Your task to perform on an android device: turn off location history Image 0: 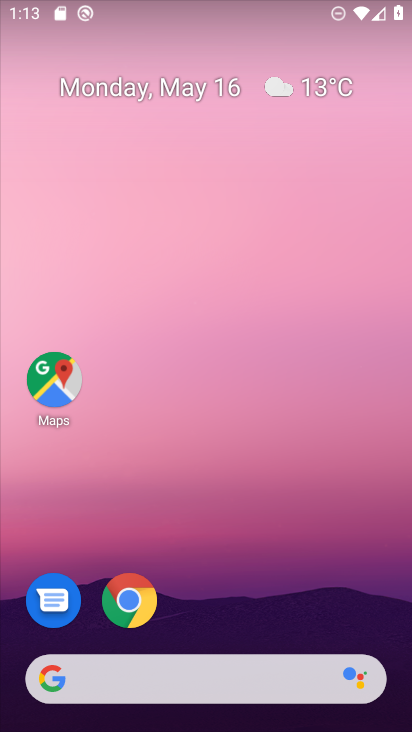
Step 0: drag from (245, 498) to (248, 32)
Your task to perform on an android device: turn off location history Image 1: 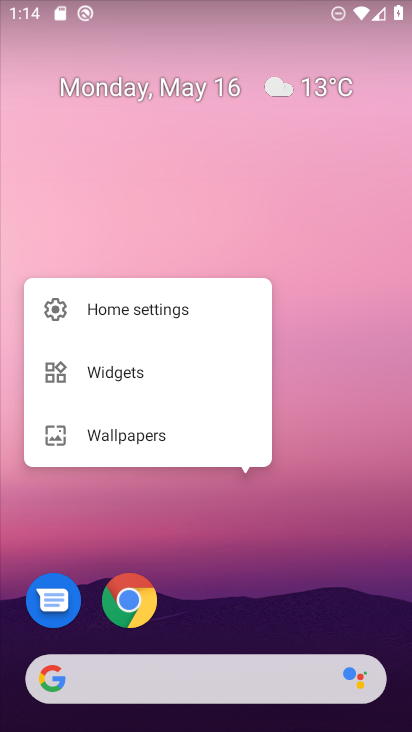
Step 1: click (280, 563)
Your task to perform on an android device: turn off location history Image 2: 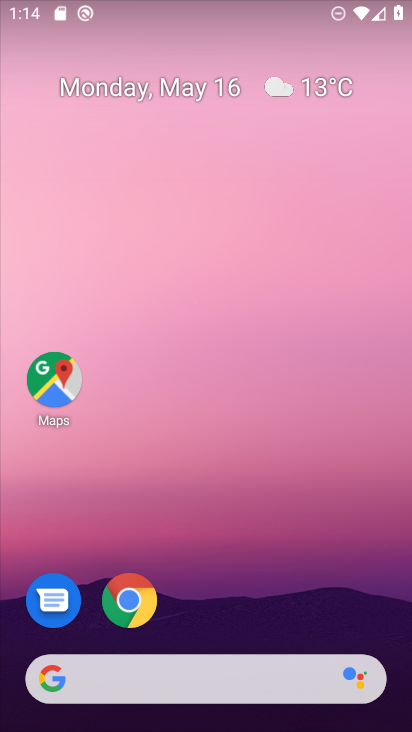
Step 2: drag from (258, 639) to (292, 123)
Your task to perform on an android device: turn off location history Image 3: 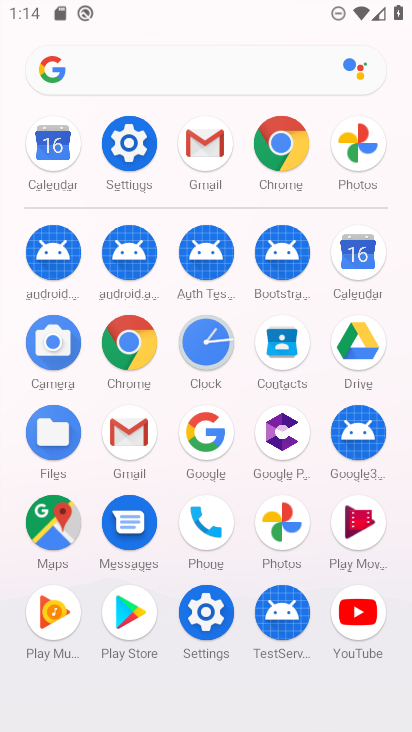
Step 3: click (129, 143)
Your task to perform on an android device: turn off location history Image 4: 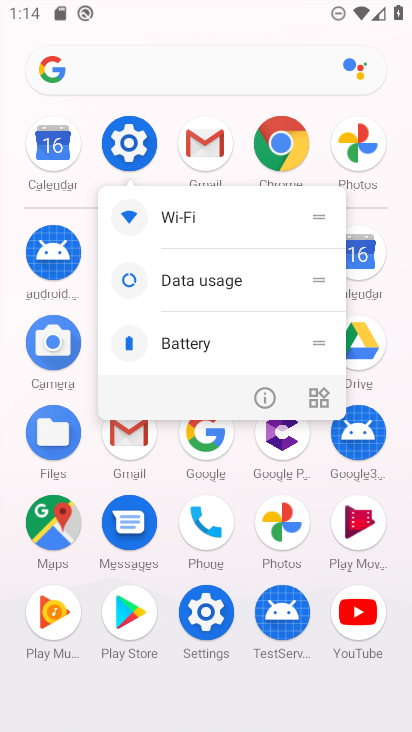
Step 4: click (207, 605)
Your task to perform on an android device: turn off location history Image 5: 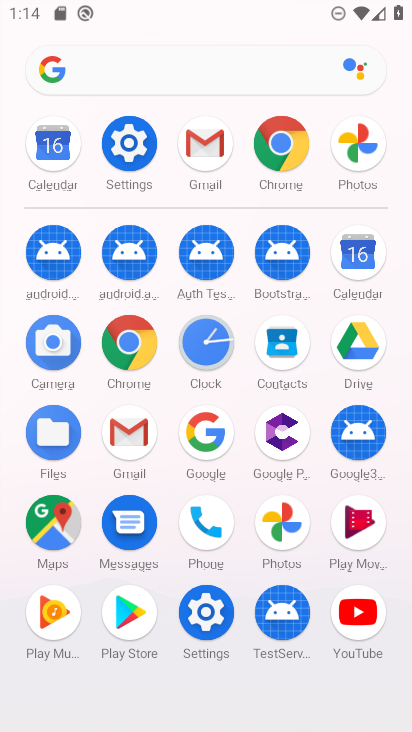
Step 5: click (207, 605)
Your task to perform on an android device: turn off location history Image 6: 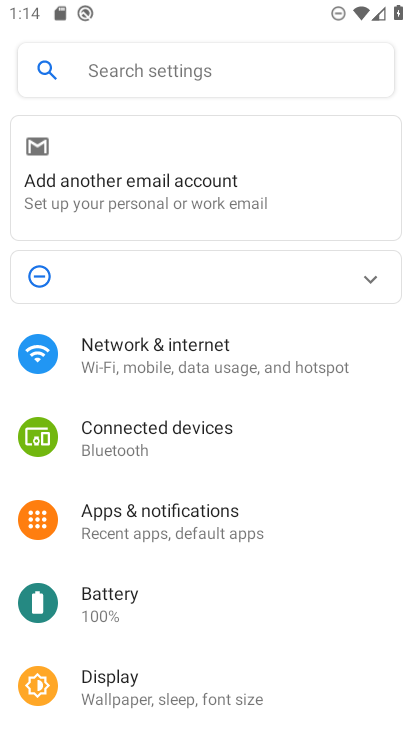
Step 6: drag from (196, 663) to (234, 12)
Your task to perform on an android device: turn off location history Image 7: 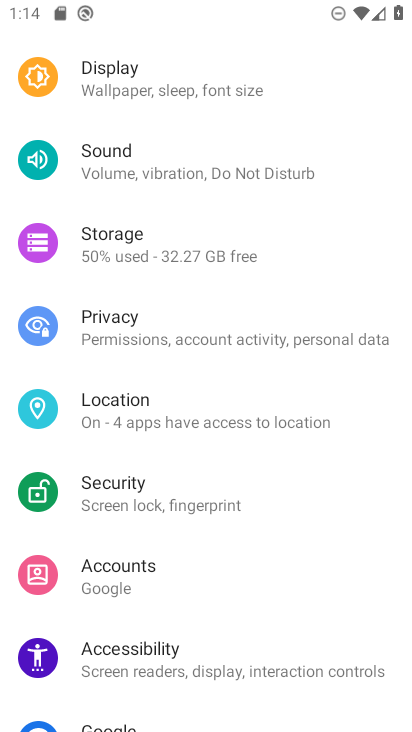
Step 7: click (168, 400)
Your task to perform on an android device: turn off location history Image 8: 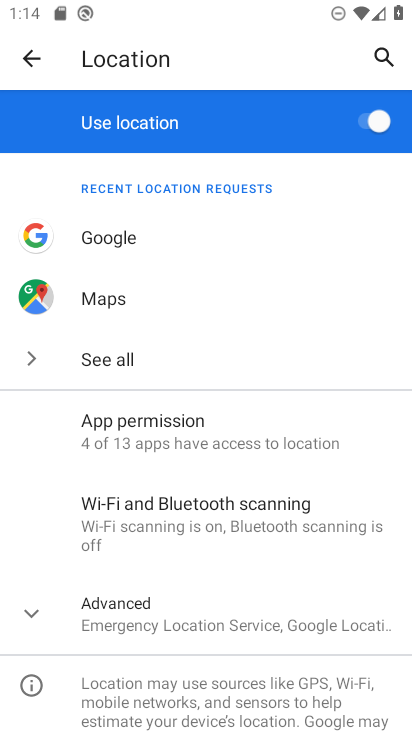
Step 8: click (35, 608)
Your task to perform on an android device: turn off location history Image 9: 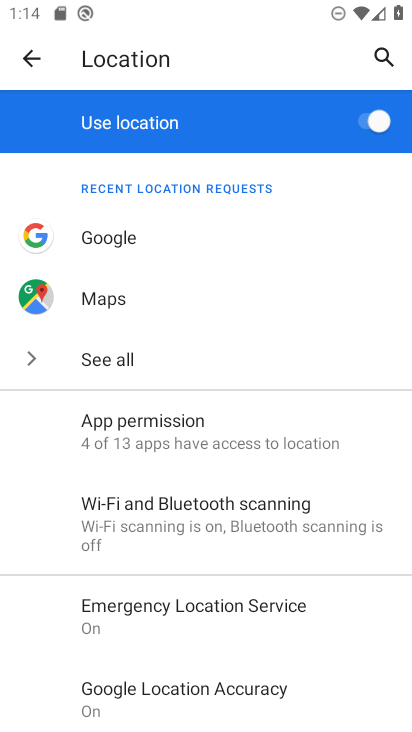
Step 9: drag from (211, 672) to (213, 241)
Your task to perform on an android device: turn off location history Image 10: 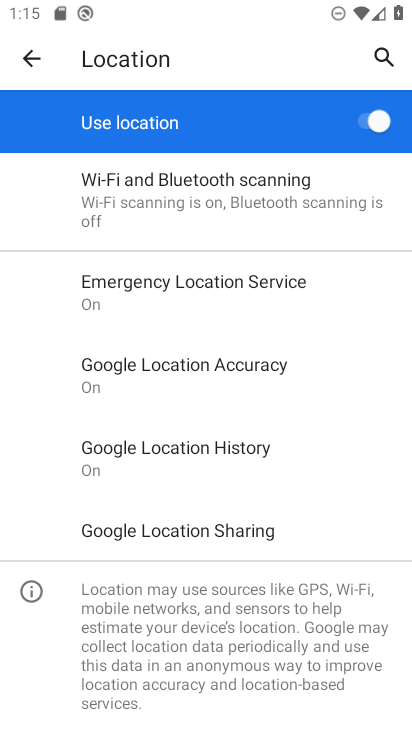
Step 10: click (208, 455)
Your task to perform on an android device: turn off location history Image 11: 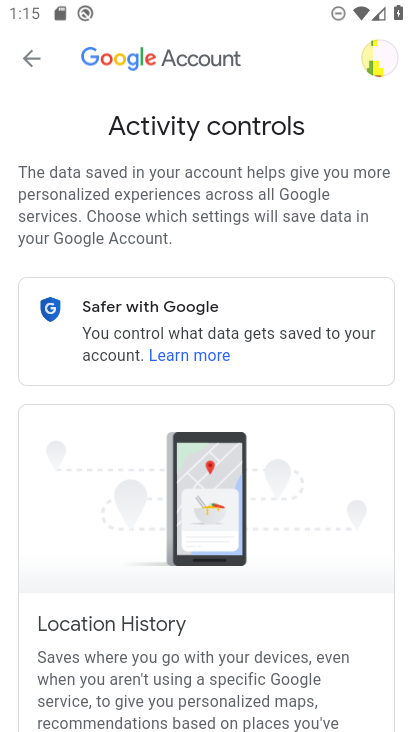
Step 11: drag from (239, 642) to (232, 122)
Your task to perform on an android device: turn off location history Image 12: 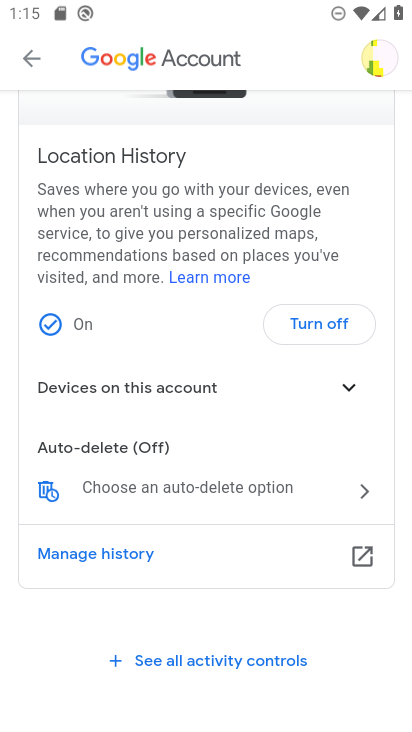
Step 12: click (332, 321)
Your task to perform on an android device: turn off location history Image 13: 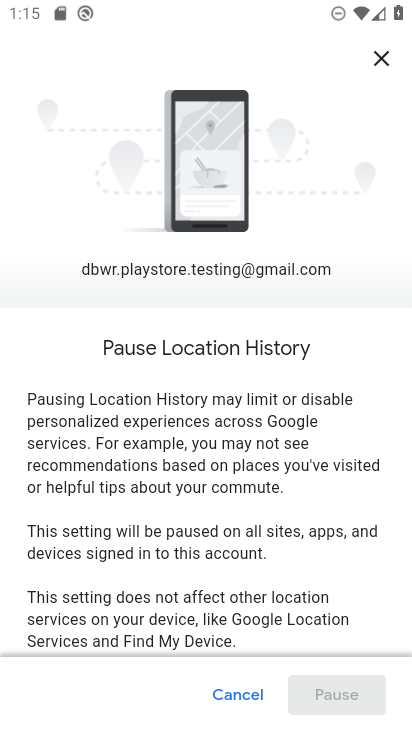
Step 13: drag from (298, 620) to (304, 191)
Your task to perform on an android device: turn off location history Image 14: 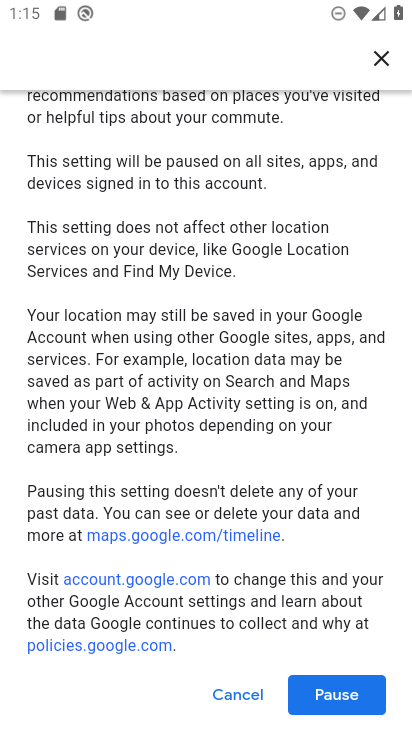
Step 14: click (330, 691)
Your task to perform on an android device: turn off location history Image 15: 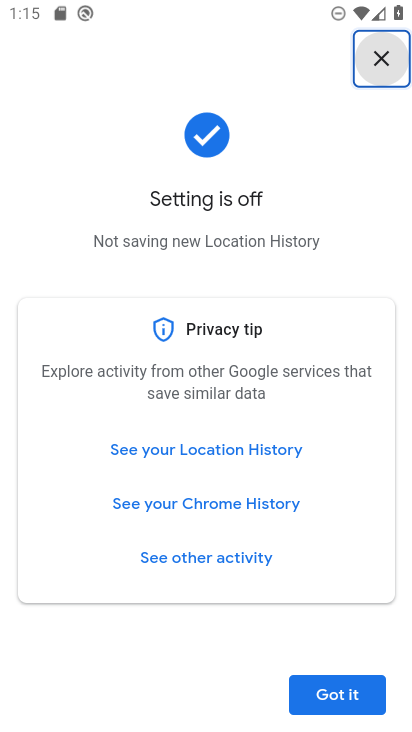
Step 15: click (333, 692)
Your task to perform on an android device: turn off location history Image 16: 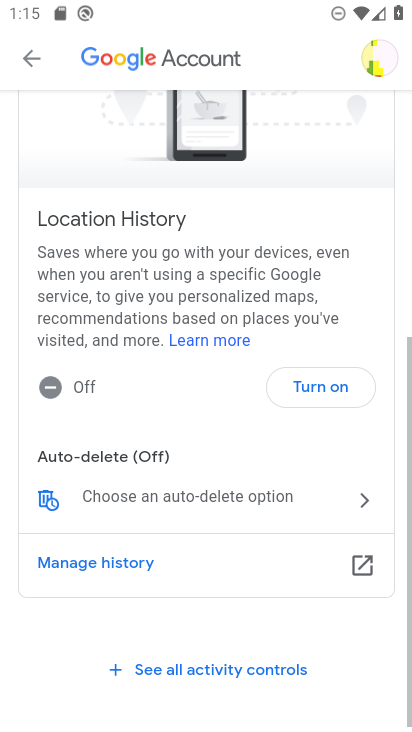
Step 16: task complete